Your task to perform on an android device: Open calendar and show me the fourth week of next month Image 0: 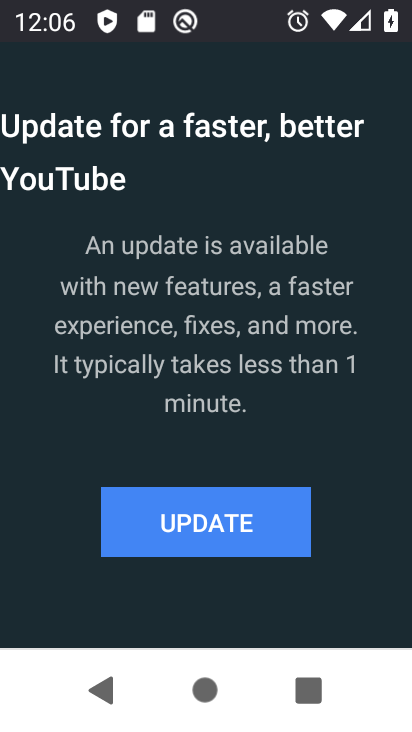
Step 0: press home button
Your task to perform on an android device: Open calendar and show me the fourth week of next month Image 1: 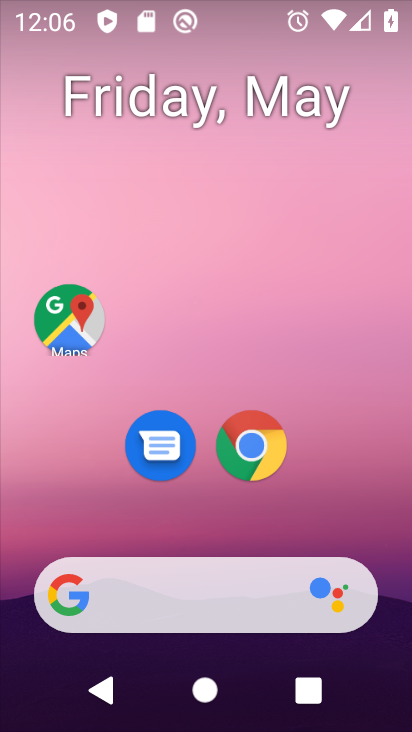
Step 1: drag from (356, 542) to (380, 23)
Your task to perform on an android device: Open calendar and show me the fourth week of next month Image 2: 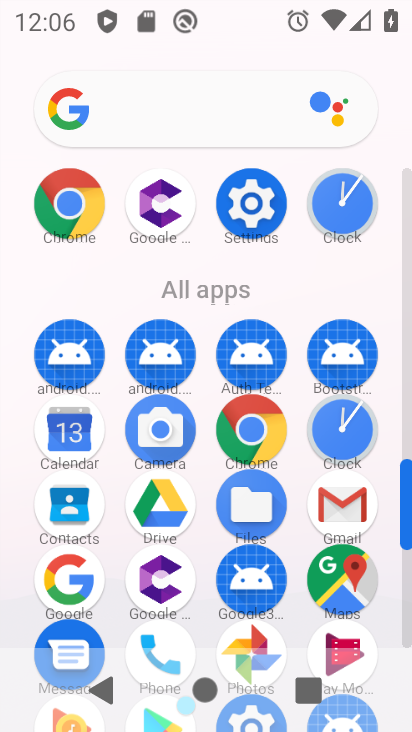
Step 2: click (67, 435)
Your task to perform on an android device: Open calendar and show me the fourth week of next month Image 3: 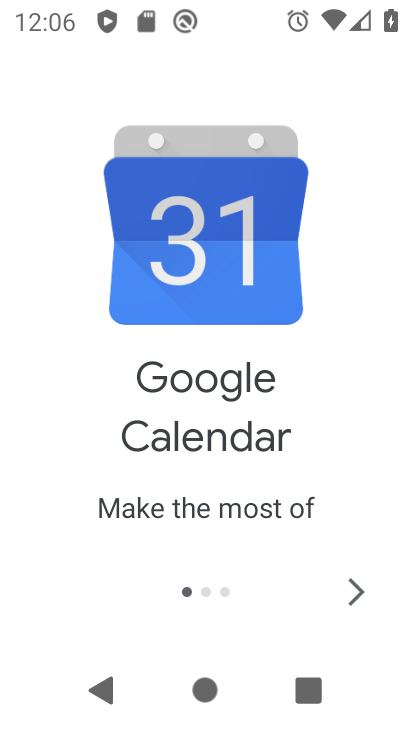
Step 3: click (356, 601)
Your task to perform on an android device: Open calendar and show me the fourth week of next month Image 4: 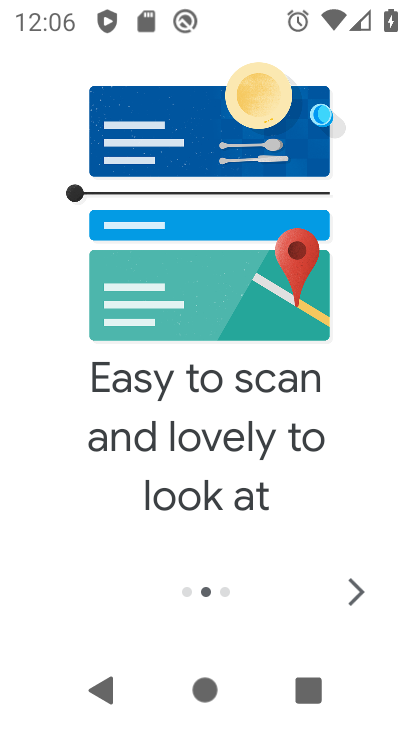
Step 4: click (356, 601)
Your task to perform on an android device: Open calendar and show me the fourth week of next month Image 5: 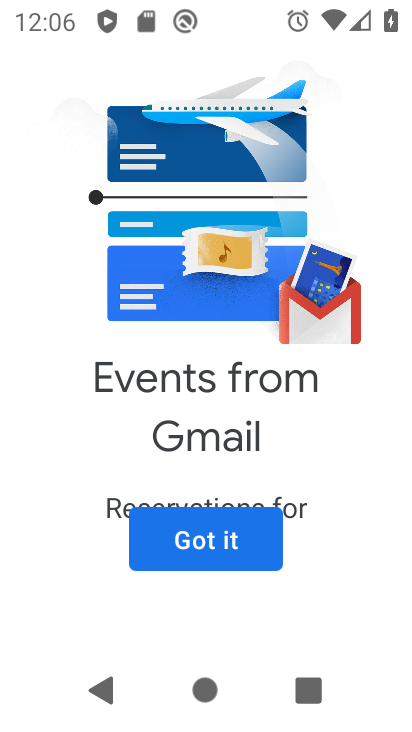
Step 5: click (190, 556)
Your task to perform on an android device: Open calendar and show me the fourth week of next month Image 6: 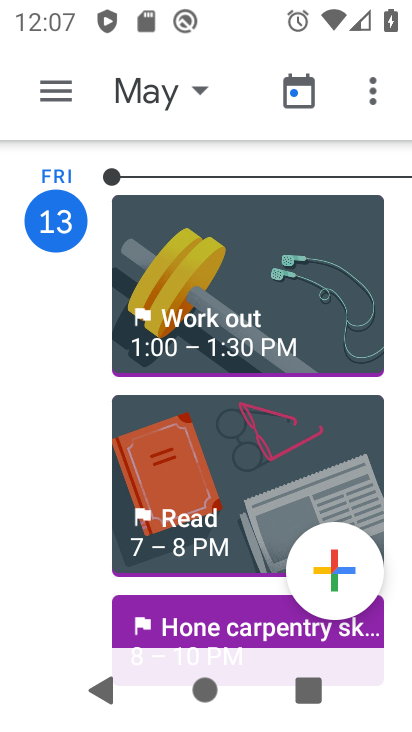
Step 6: click (201, 98)
Your task to perform on an android device: Open calendar and show me the fourth week of next month Image 7: 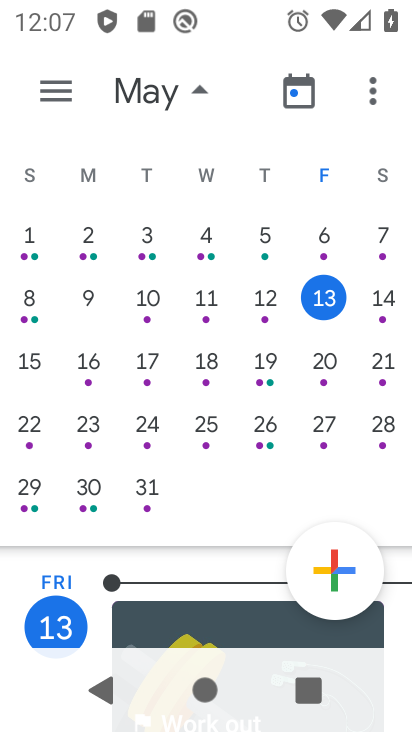
Step 7: drag from (345, 375) to (2, 290)
Your task to perform on an android device: Open calendar and show me the fourth week of next month Image 8: 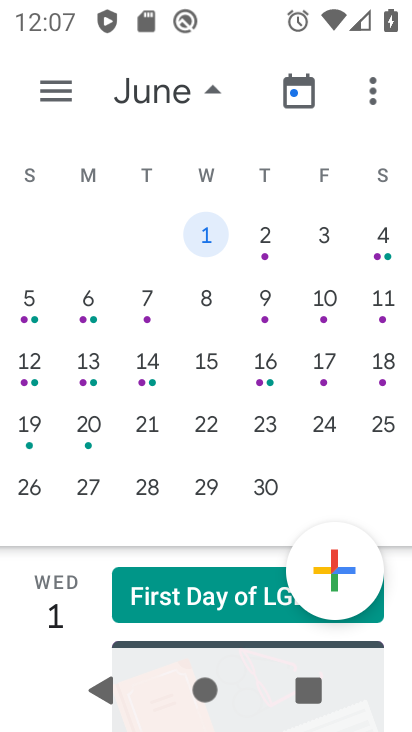
Step 8: click (55, 94)
Your task to perform on an android device: Open calendar and show me the fourth week of next month Image 9: 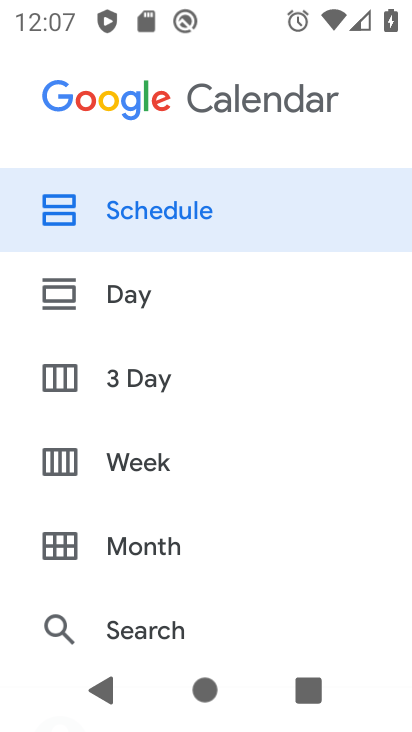
Step 9: click (140, 463)
Your task to perform on an android device: Open calendar and show me the fourth week of next month Image 10: 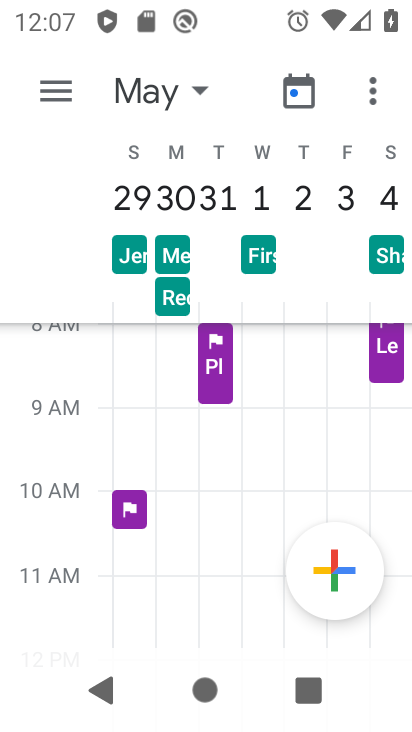
Step 10: task complete